Your task to perform on an android device: move a message to another label in the gmail app Image 0: 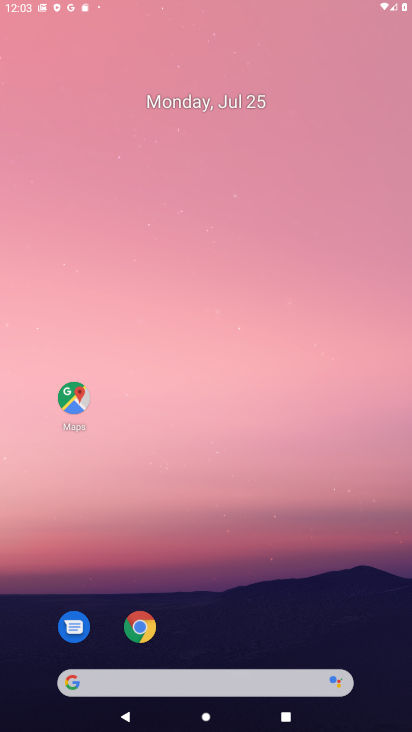
Step 0: press home button
Your task to perform on an android device: move a message to another label in the gmail app Image 1: 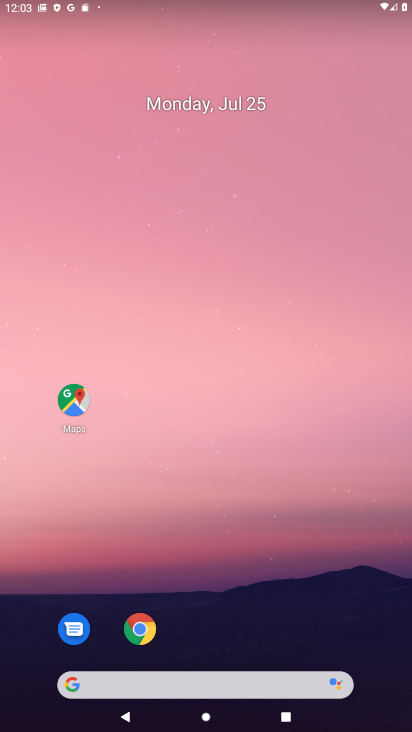
Step 1: drag from (259, 619) to (336, 13)
Your task to perform on an android device: move a message to another label in the gmail app Image 2: 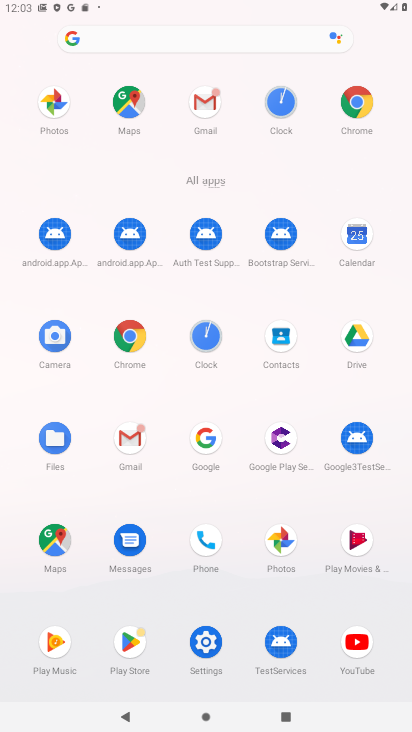
Step 2: click (207, 103)
Your task to perform on an android device: move a message to another label in the gmail app Image 3: 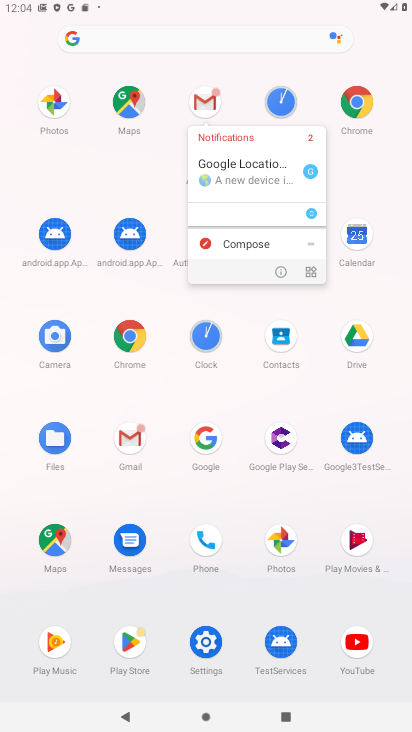
Step 3: click (204, 96)
Your task to perform on an android device: move a message to another label in the gmail app Image 4: 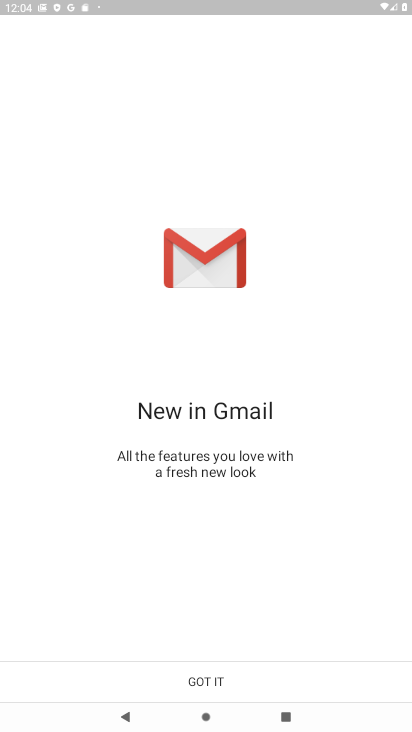
Step 4: click (302, 667)
Your task to perform on an android device: move a message to another label in the gmail app Image 5: 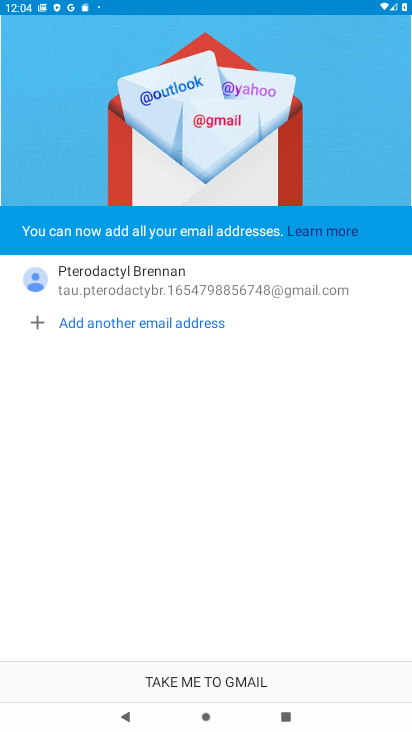
Step 5: click (306, 667)
Your task to perform on an android device: move a message to another label in the gmail app Image 6: 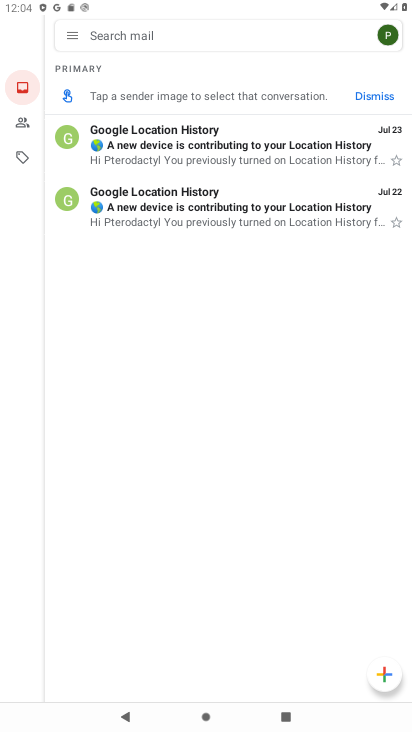
Step 6: drag from (278, 151) to (389, 30)
Your task to perform on an android device: move a message to another label in the gmail app Image 7: 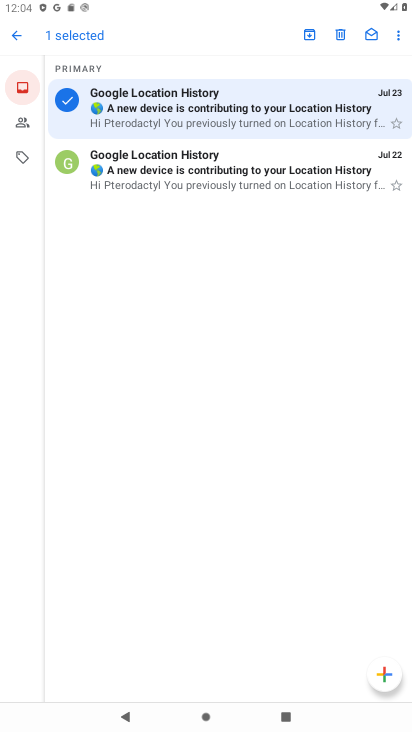
Step 7: click (397, 32)
Your task to perform on an android device: move a message to another label in the gmail app Image 8: 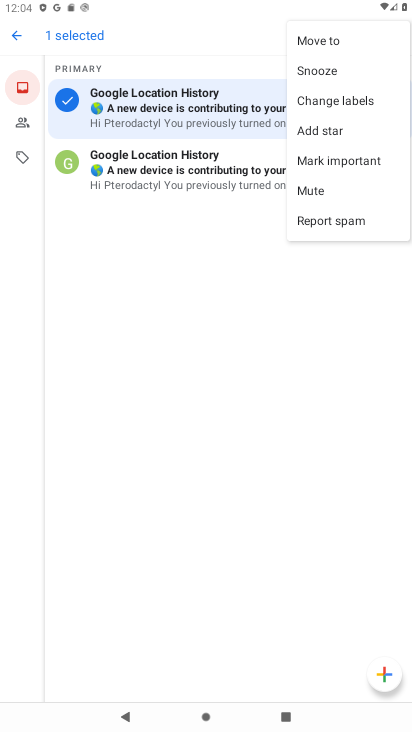
Step 8: click (351, 94)
Your task to perform on an android device: move a message to another label in the gmail app Image 9: 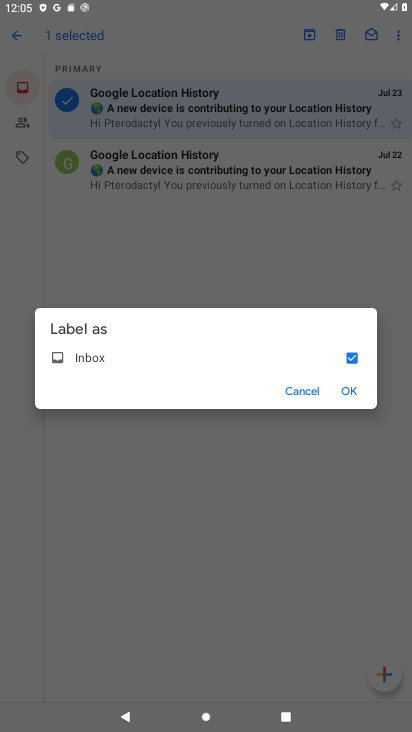
Step 9: click (354, 361)
Your task to perform on an android device: move a message to another label in the gmail app Image 10: 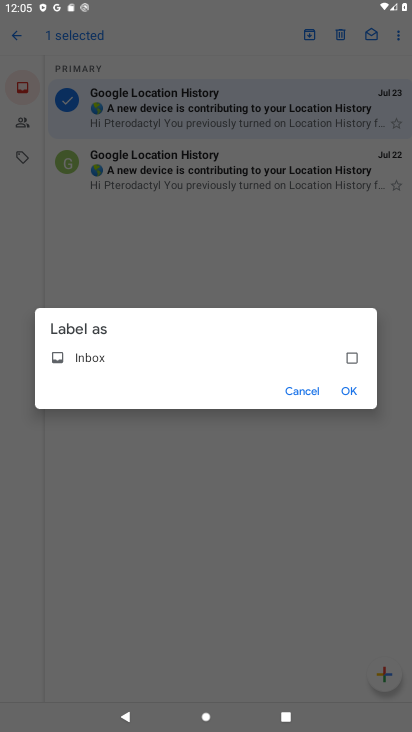
Step 10: click (346, 395)
Your task to perform on an android device: move a message to another label in the gmail app Image 11: 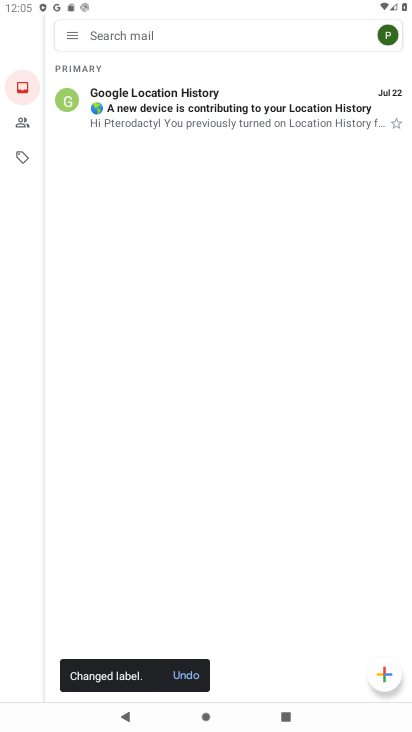
Step 11: task complete